Your task to perform on an android device: Clear the shopping cart on costco. Add bose soundlink mini to the cart on costco Image 0: 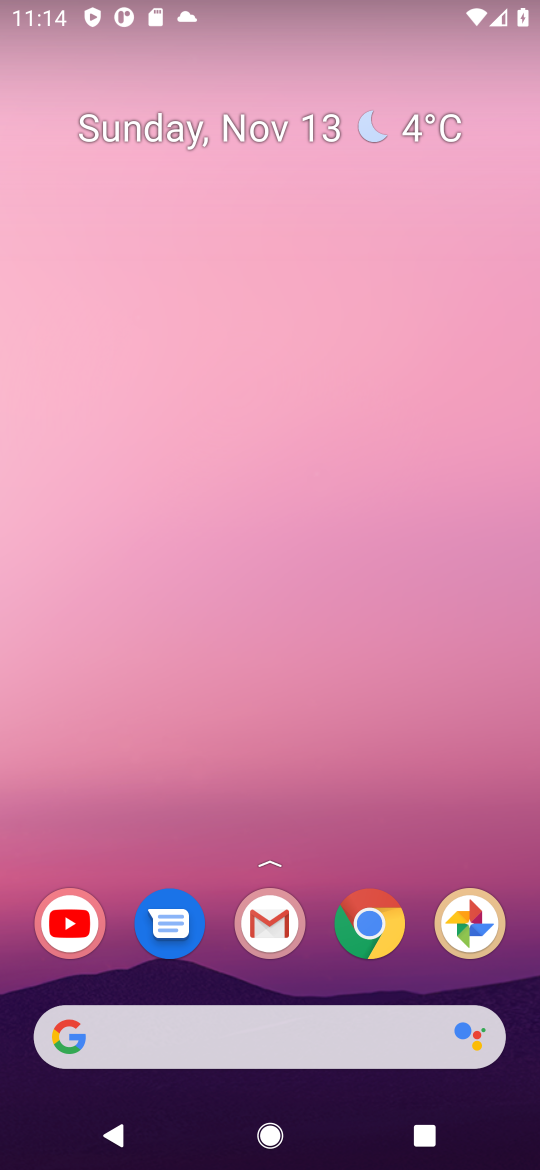
Step 0: click (367, 929)
Your task to perform on an android device: Clear the shopping cart on costco. Add bose soundlink mini to the cart on costco Image 1: 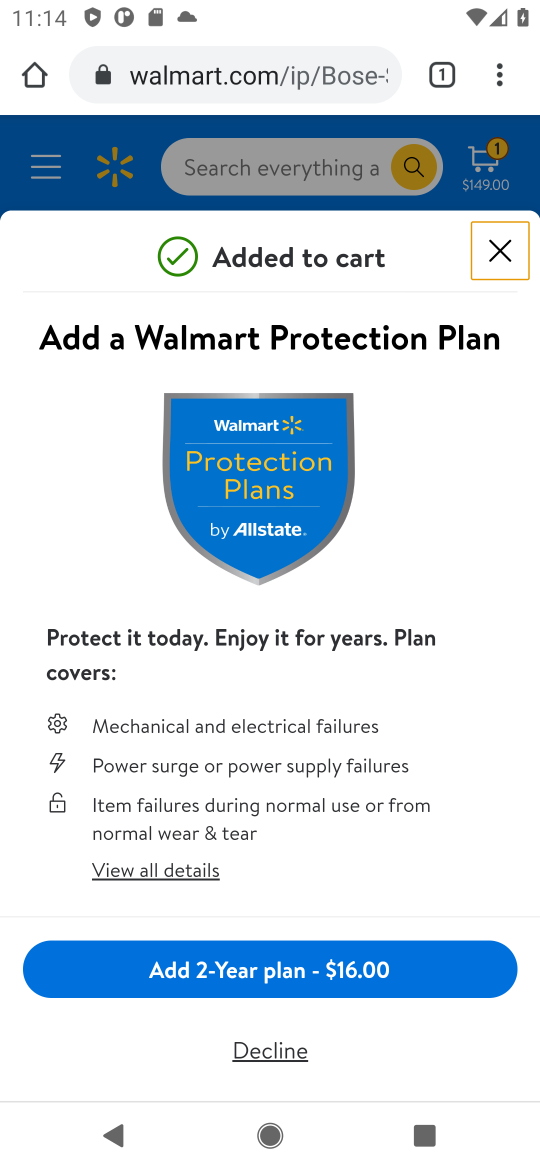
Step 1: click (305, 74)
Your task to perform on an android device: Clear the shopping cart on costco. Add bose soundlink mini to the cart on costco Image 2: 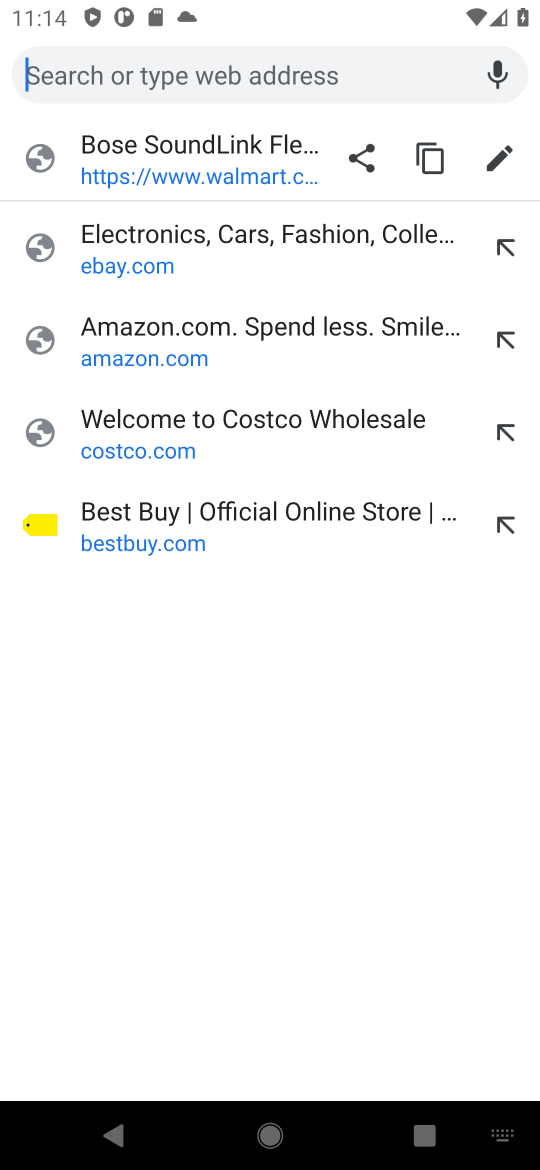
Step 2: click (256, 409)
Your task to perform on an android device: Clear the shopping cart on costco. Add bose soundlink mini to the cart on costco Image 3: 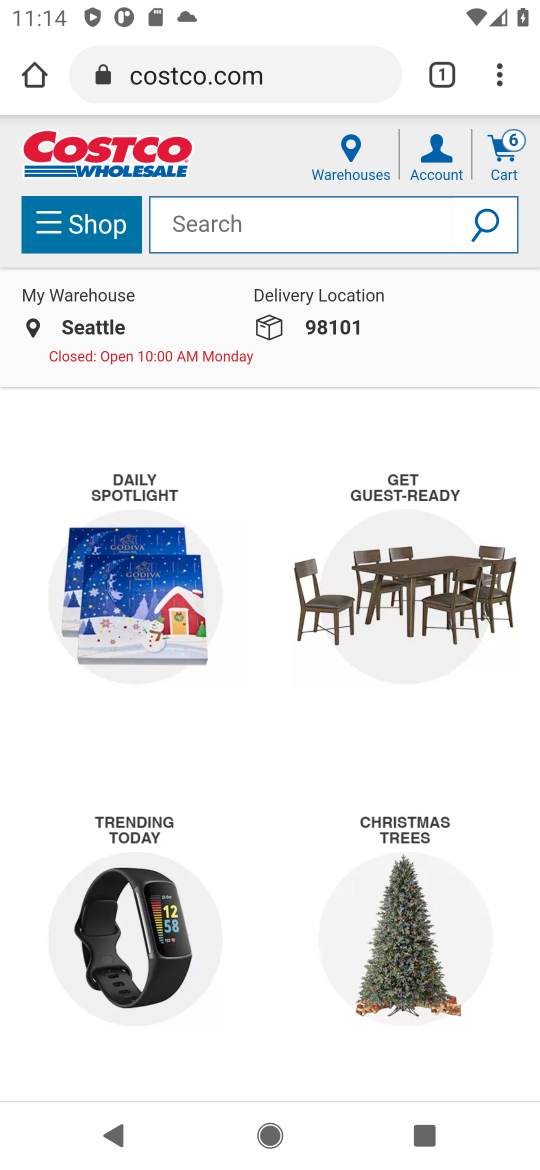
Step 3: click (510, 161)
Your task to perform on an android device: Clear the shopping cart on costco. Add bose soundlink mini to the cart on costco Image 4: 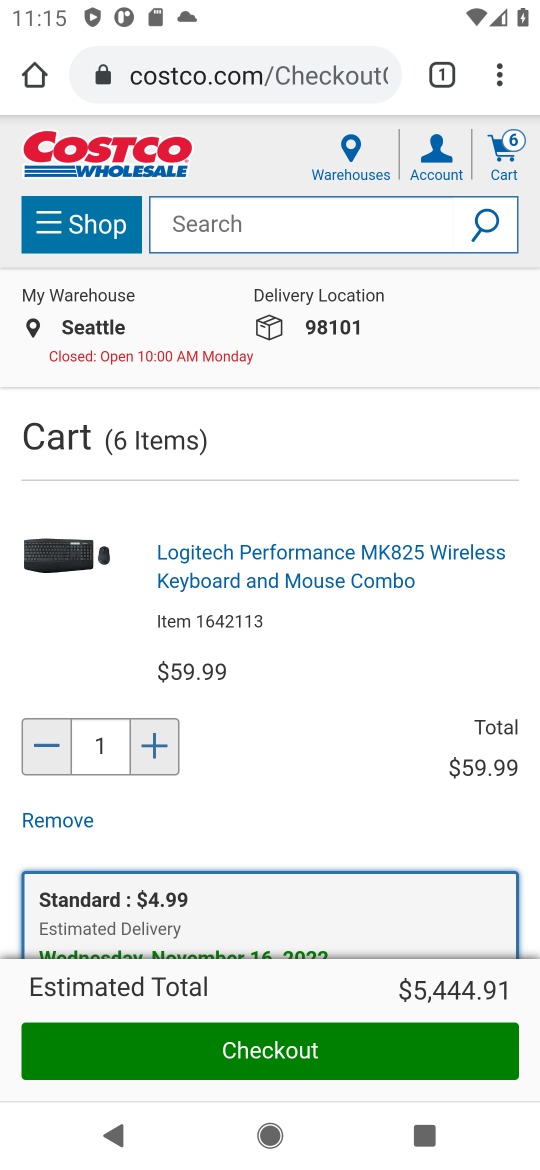
Step 4: task complete